Your task to perform on an android device: read, delete, or share a saved page in the chrome app Image 0: 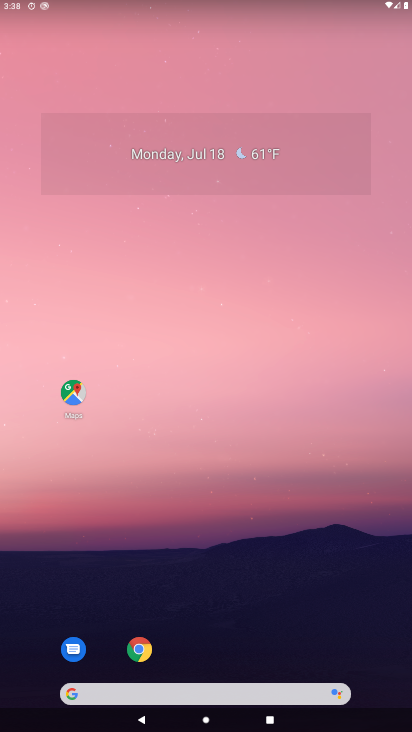
Step 0: click (140, 639)
Your task to perform on an android device: read, delete, or share a saved page in the chrome app Image 1: 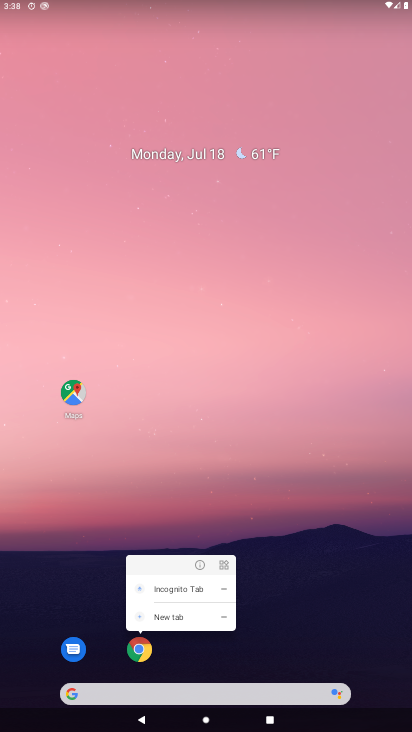
Step 1: click (139, 647)
Your task to perform on an android device: read, delete, or share a saved page in the chrome app Image 2: 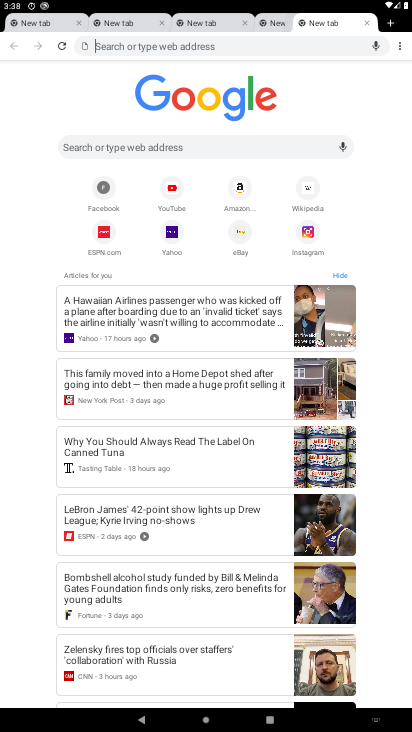
Step 2: click (401, 43)
Your task to perform on an android device: read, delete, or share a saved page in the chrome app Image 3: 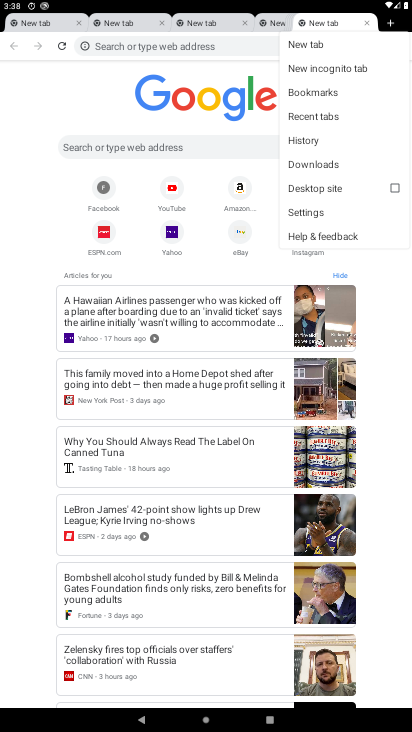
Step 3: click (322, 213)
Your task to perform on an android device: read, delete, or share a saved page in the chrome app Image 4: 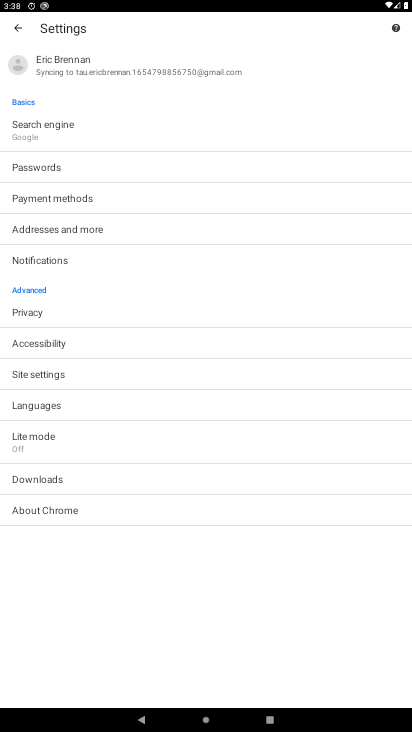
Step 4: click (47, 371)
Your task to perform on an android device: read, delete, or share a saved page in the chrome app Image 5: 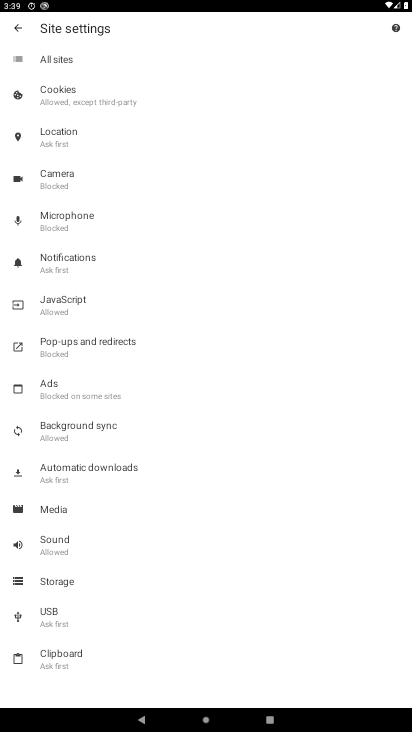
Step 5: click (82, 267)
Your task to perform on an android device: read, delete, or share a saved page in the chrome app Image 6: 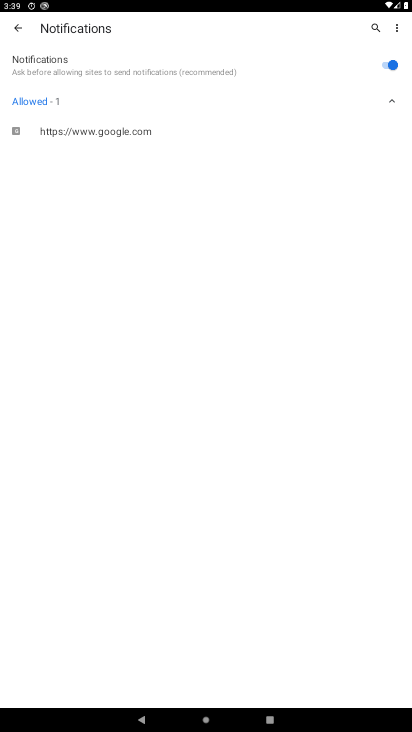
Step 6: click (21, 31)
Your task to perform on an android device: read, delete, or share a saved page in the chrome app Image 7: 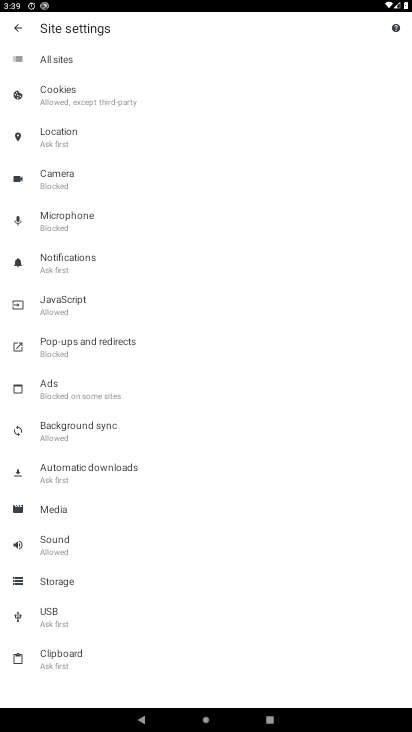
Step 7: task complete